Your task to perform on an android device: Open Youtube and go to "Your channel" Image 0: 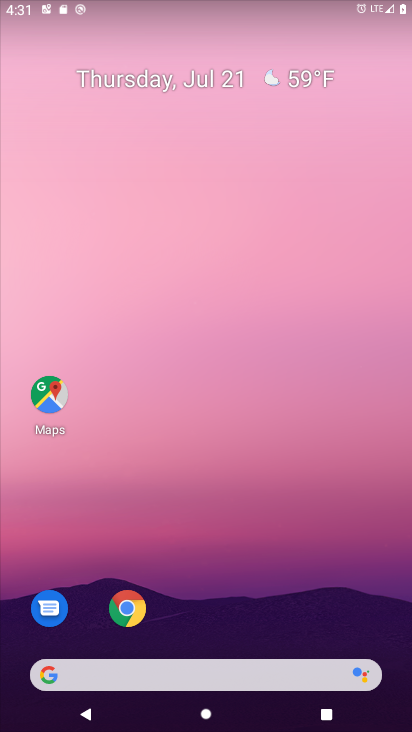
Step 0: drag from (288, 673) to (314, 43)
Your task to perform on an android device: Open Youtube and go to "Your channel" Image 1: 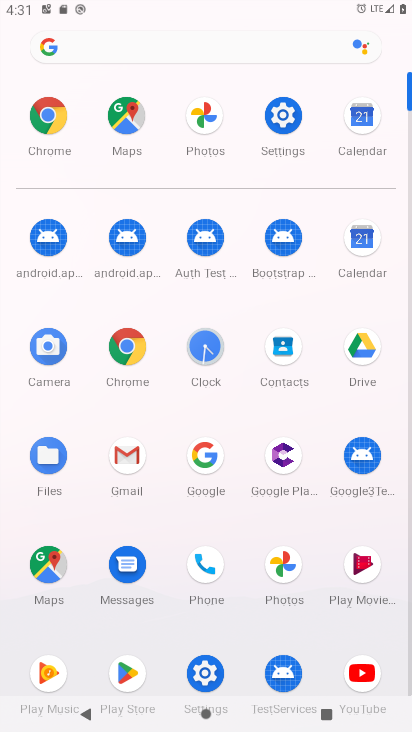
Step 1: click (361, 666)
Your task to perform on an android device: Open Youtube and go to "Your channel" Image 2: 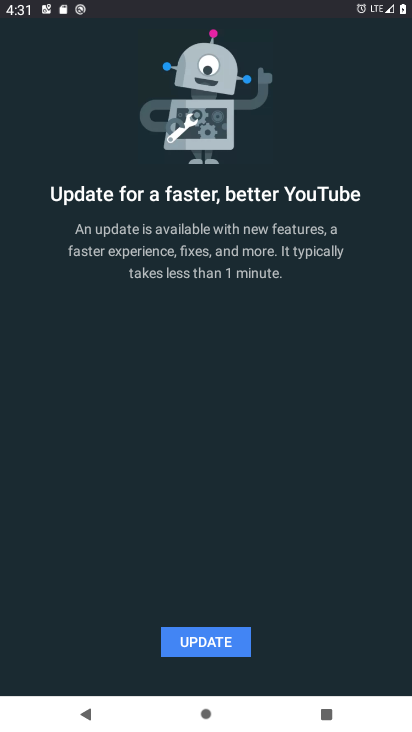
Step 2: click (227, 646)
Your task to perform on an android device: Open Youtube and go to "Your channel" Image 3: 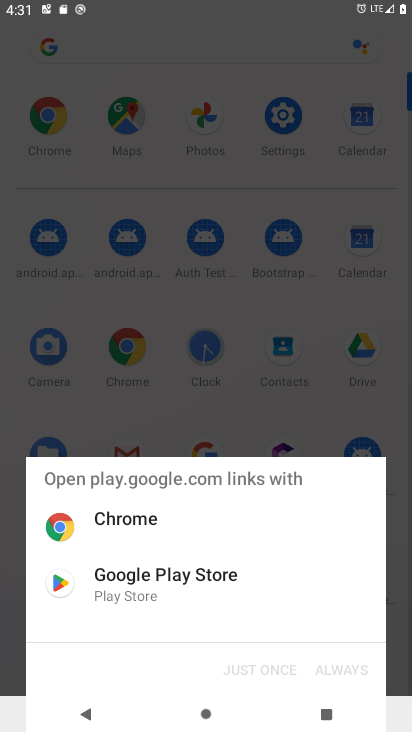
Step 3: click (189, 582)
Your task to perform on an android device: Open Youtube and go to "Your channel" Image 4: 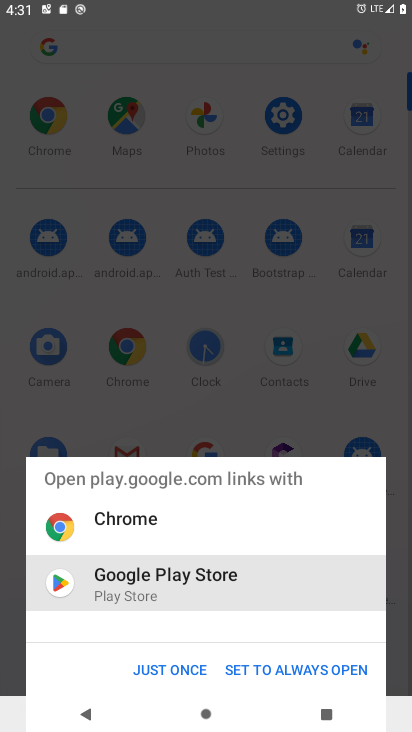
Step 4: click (170, 663)
Your task to perform on an android device: Open Youtube and go to "Your channel" Image 5: 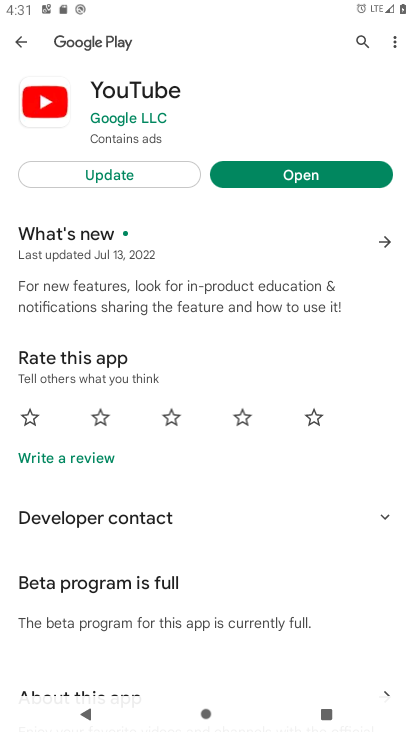
Step 5: click (132, 170)
Your task to perform on an android device: Open Youtube and go to "Your channel" Image 6: 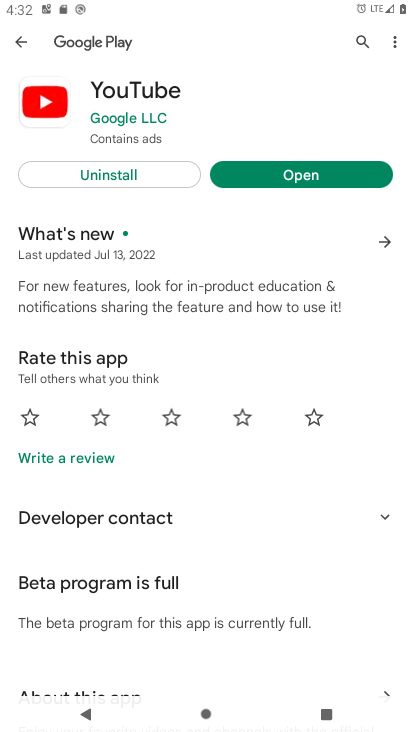
Step 6: click (347, 173)
Your task to perform on an android device: Open Youtube and go to "Your channel" Image 7: 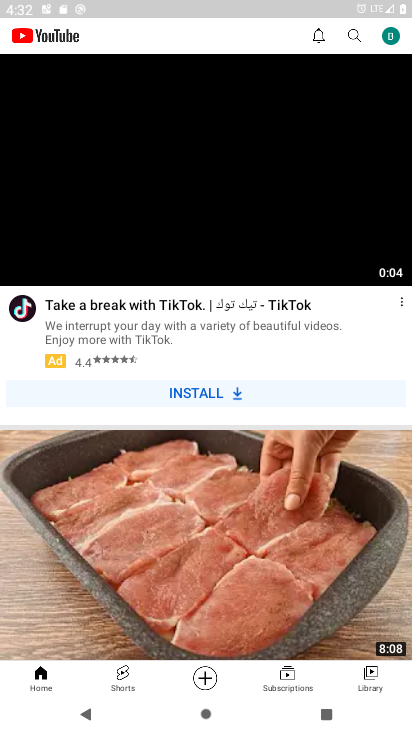
Step 7: click (386, 39)
Your task to perform on an android device: Open Youtube and go to "Your channel" Image 8: 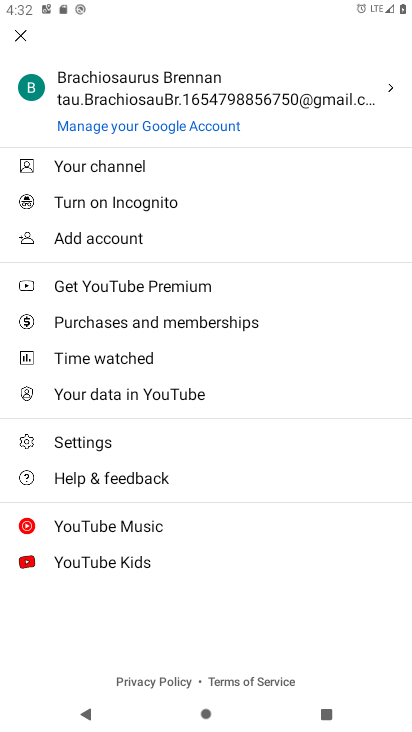
Step 8: click (184, 163)
Your task to perform on an android device: Open Youtube and go to "Your channel" Image 9: 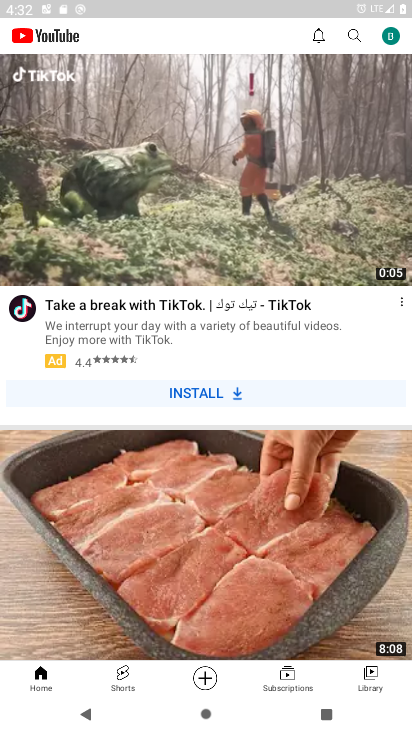
Step 9: task complete